Your task to perform on an android device: change timer sound Image 0: 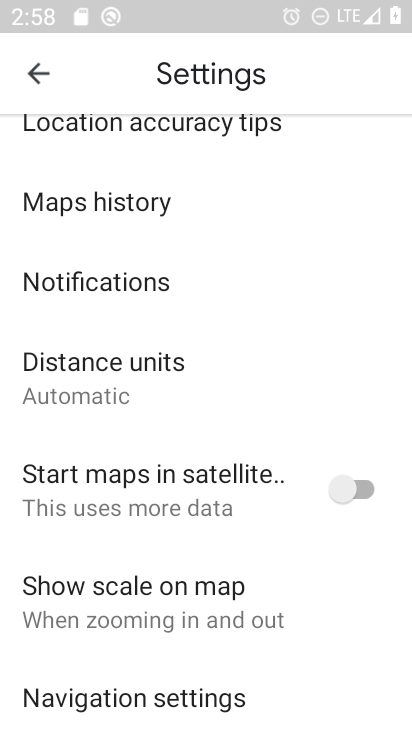
Step 0: press home button
Your task to perform on an android device: change timer sound Image 1: 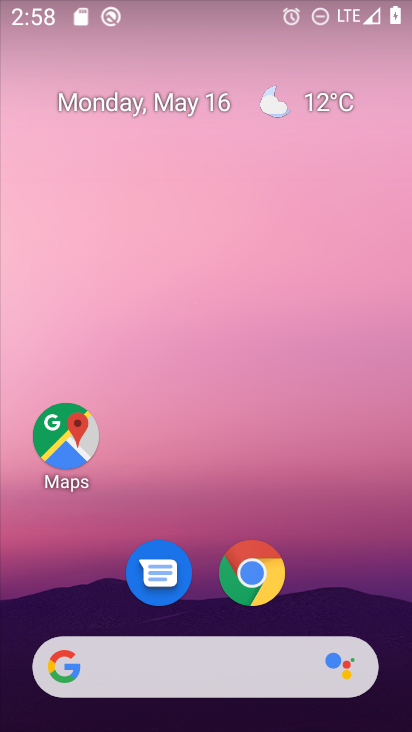
Step 1: drag from (146, 671) to (118, 0)
Your task to perform on an android device: change timer sound Image 2: 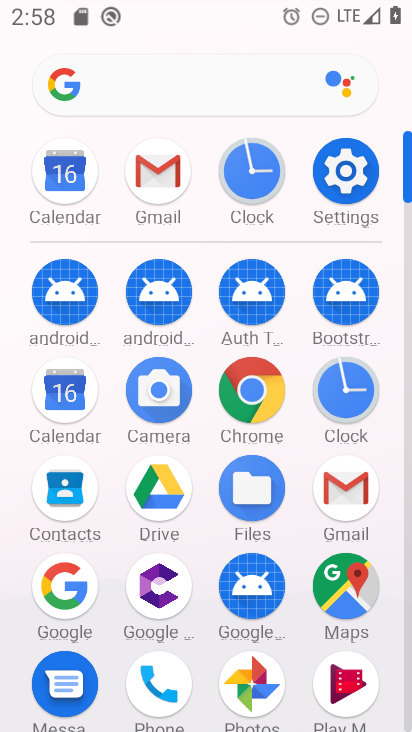
Step 2: click (348, 418)
Your task to perform on an android device: change timer sound Image 3: 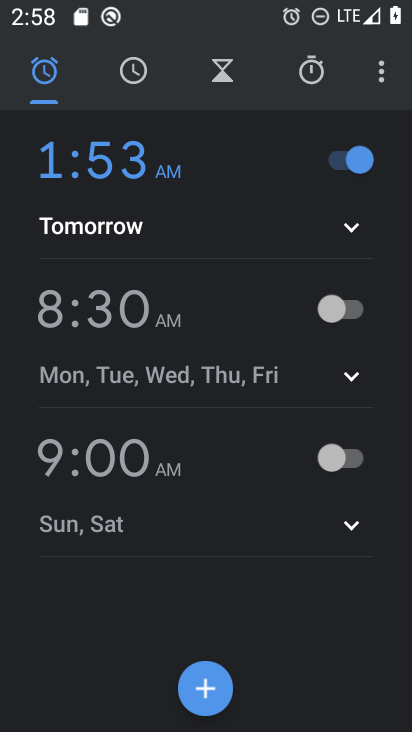
Step 3: click (374, 67)
Your task to perform on an android device: change timer sound Image 4: 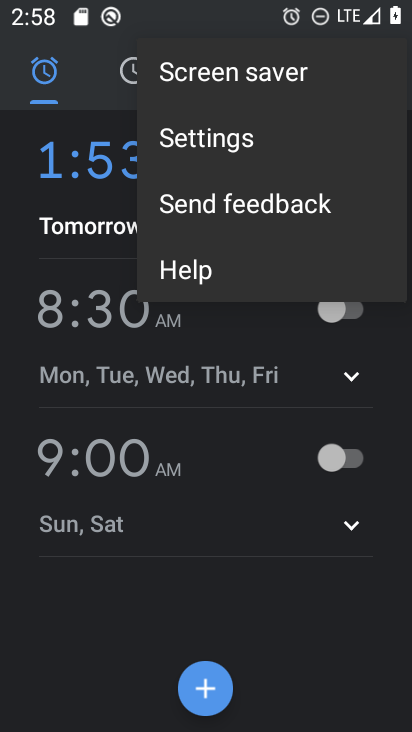
Step 4: click (196, 165)
Your task to perform on an android device: change timer sound Image 5: 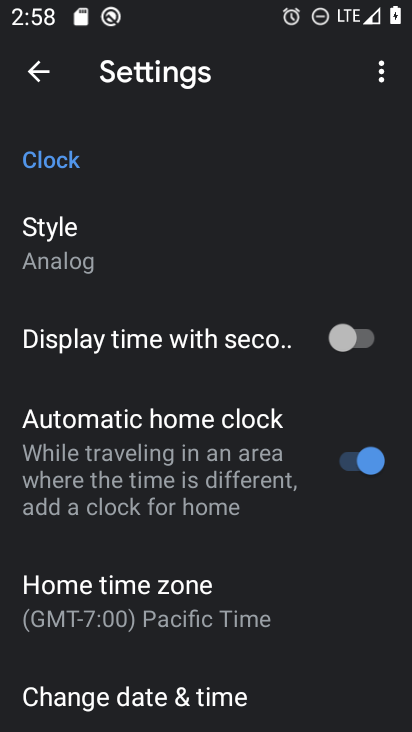
Step 5: drag from (107, 621) to (115, 36)
Your task to perform on an android device: change timer sound Image 6: 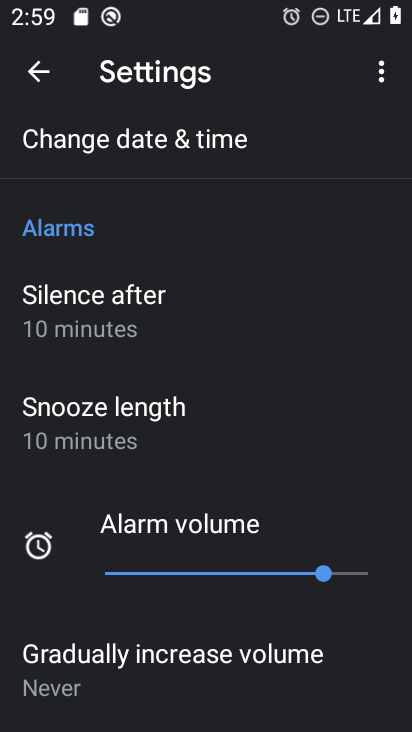
Step 6: drag from (181, 442) to (128, 29)
Your task to perform on an android device: change timer sound Image 7: 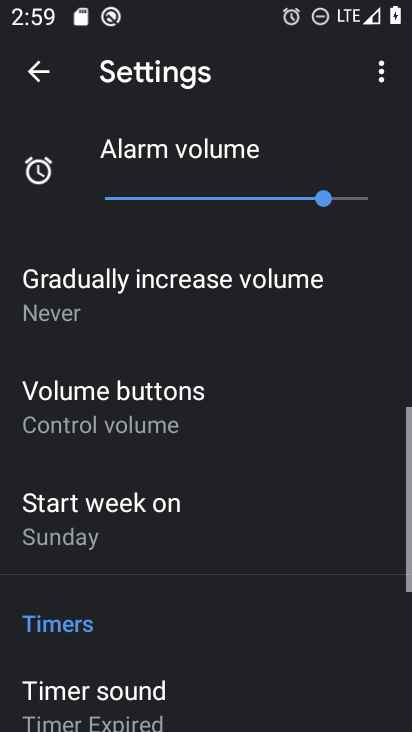
Step 7: drag from (133, 546) to (105, 176)
Your task to perform on an android device: change timer sound Image 8: 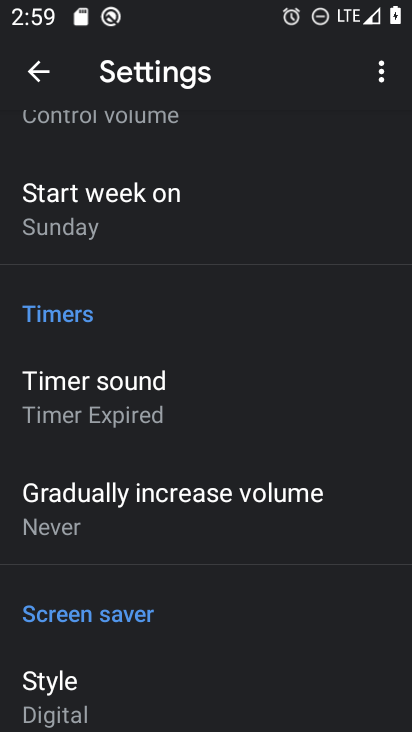
Step 8: click (113, 418)
Your task to perform on an android device: change timer sound Image 9: 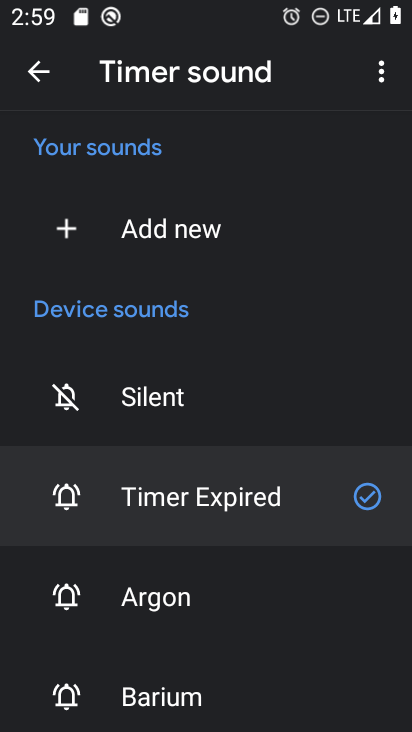
Step 9: click (149, 694)
Your task to perform on an android device: change timer sound Image 10: 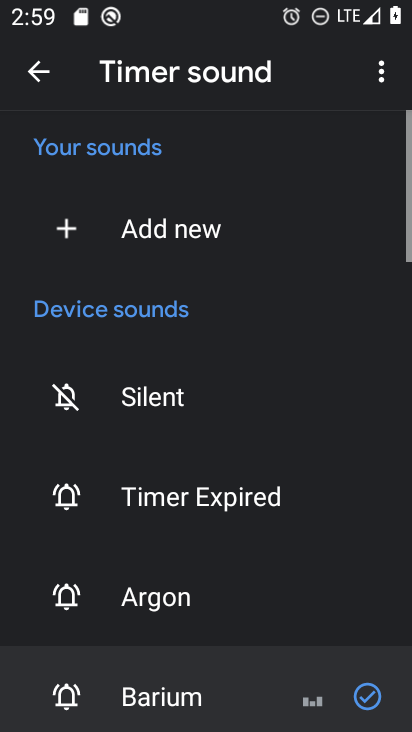
Step 10: task complete